Your task to perform on an android device: change notification settings in the gmail app Image 0: 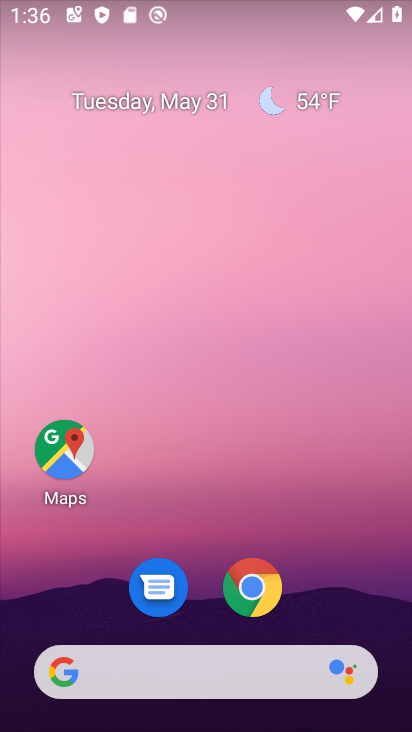
Step 0: drag from (188, 625) to (232, 198)
Your task to perform on an android device: change notification settings in the gmail app Image 1: 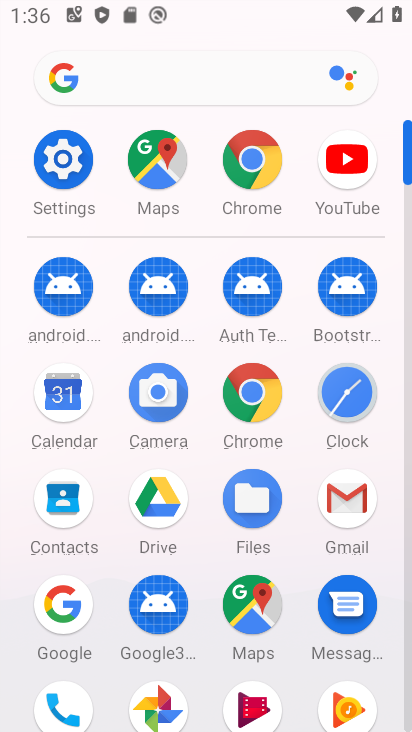
Step 1: click (339, 509)
Your task to perform on an android device: change notification settings in the gmail app Image 2: 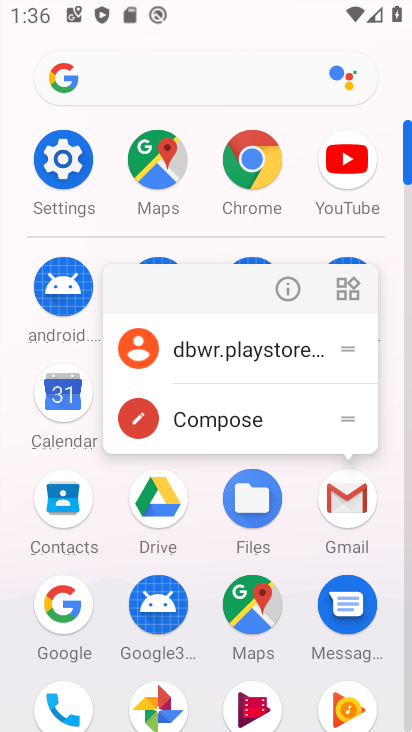
Step 2: click (278, 287)
Your task to perform on an android device: change notification settings in the gmail app Image 3: 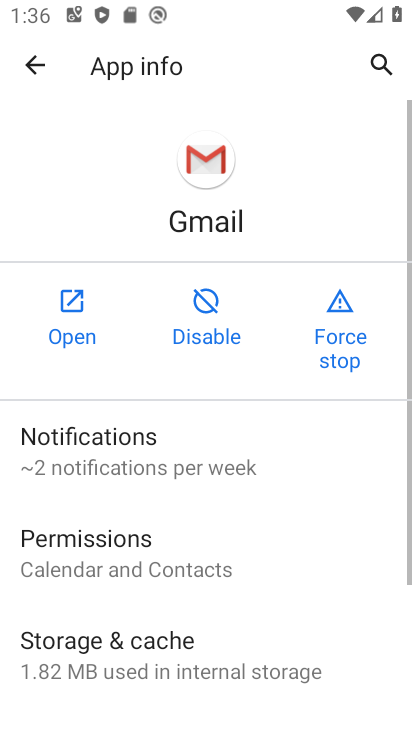
Step 3: click (69, 325)
Your task to perform on an android device: change notification settings in the gmail app Image 4: 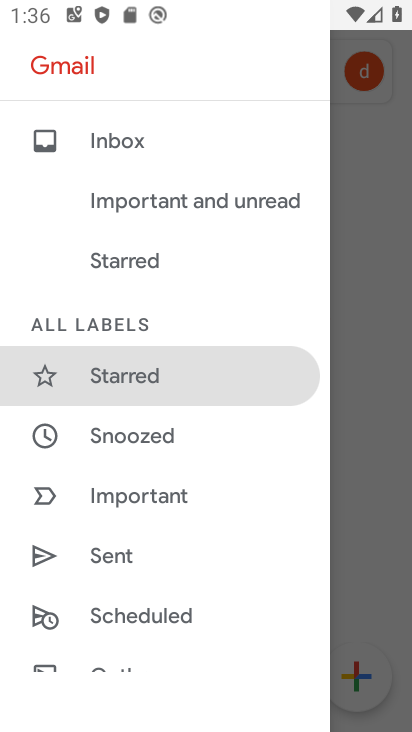
Step 4: drag from (176, 590) to (221, 199)
Your task to perform on an android device: change notification settings in the gmail app Image 5: 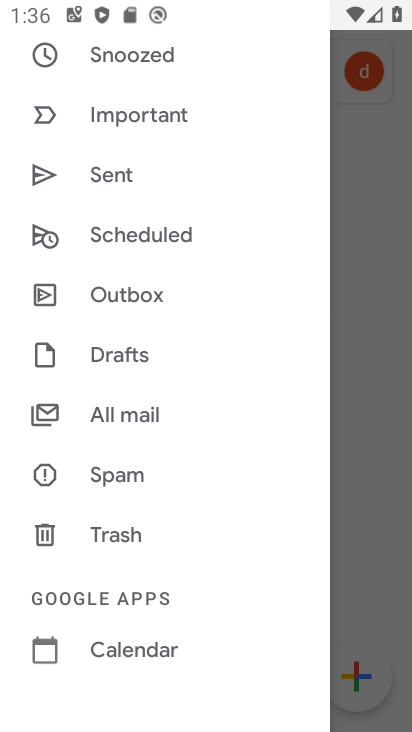
Step 5: drag from (147, 552) to (225, 123)
Your task to perform on an android device: change notification settings in the gmail app Image 6: 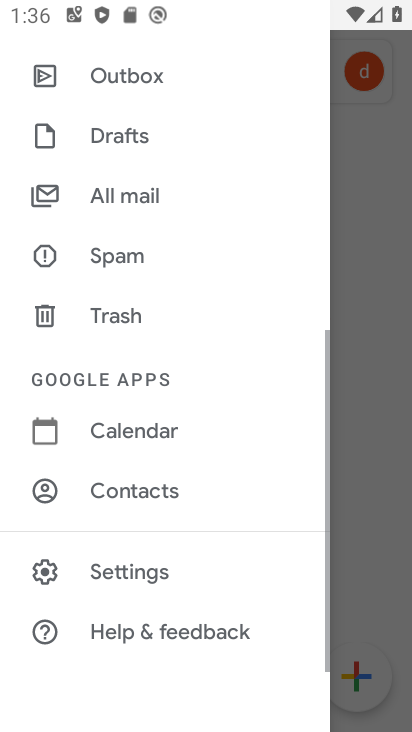
Step 6: click (118, 580)
Your task to perform on an android device: change notification settings in the gmail app Image 7: 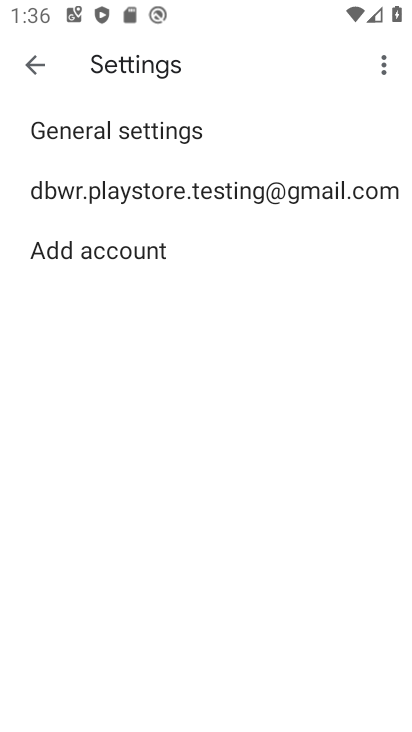
Step 7: click (167, 154)
Your task to perform on an android device: change notification settings in the gmail app Image 8: 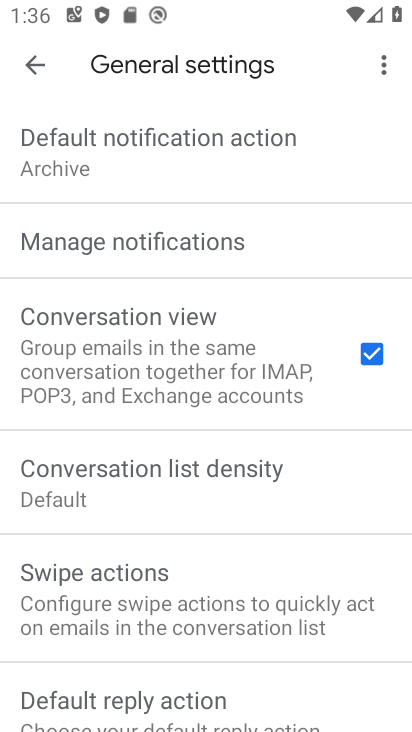
Step 8: click (41, 72)
Your task to perform on an android device: change notification settings in the gmail app Image 9: 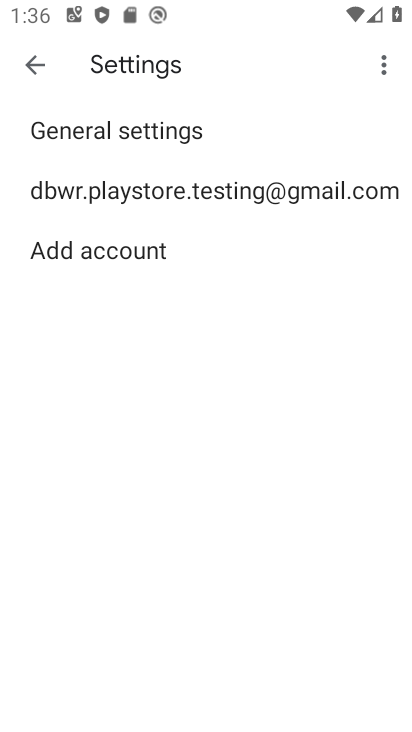
Step 9: click (114, 188)
Your task to perform on an android device: change notification settings in the gmail app Image 10: 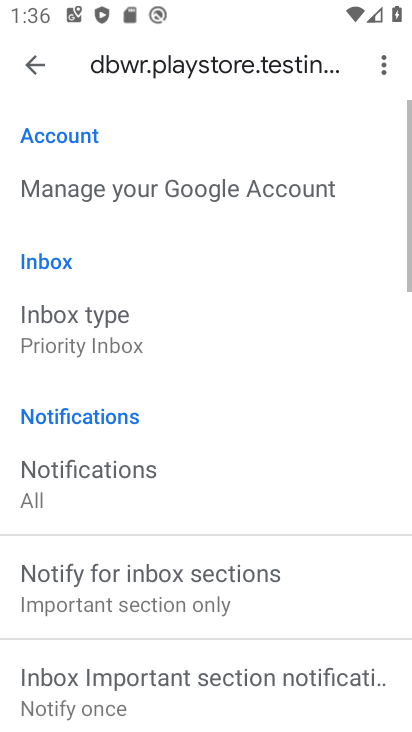
Step 10: drag from (111, 538) to (223, 189)
Your task to perform on an android device: change notification settings in the gmail app Image 11: 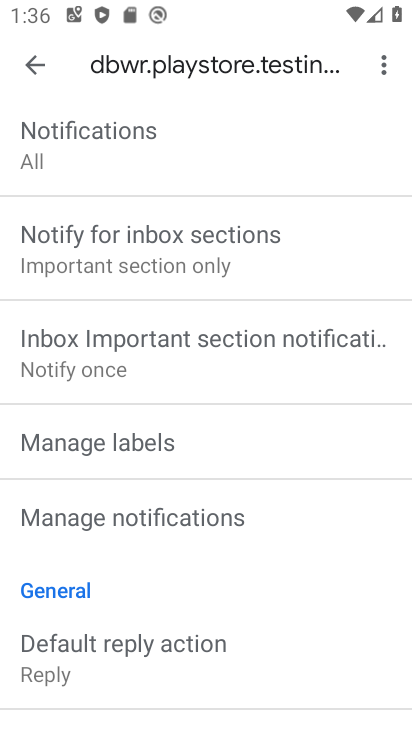
Step 11: click (107, 519)
Your task to perform on an android device: change notification settings in the gmail app Image 12: 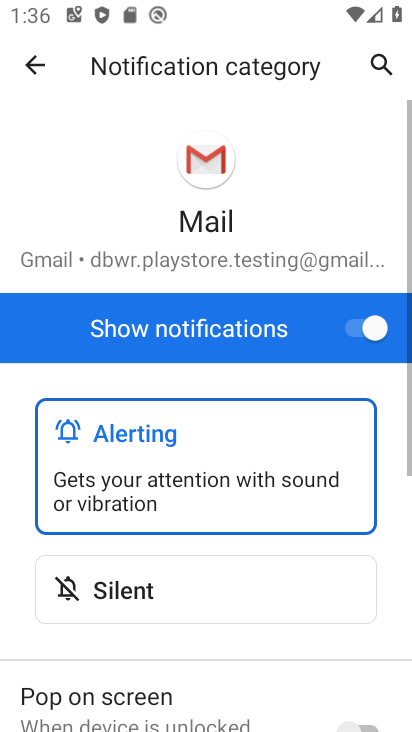
Step 12: drag from (134, 512) to (241, 201)
Your task to perform on an android device: change notification settings in the gmail app Image 13: 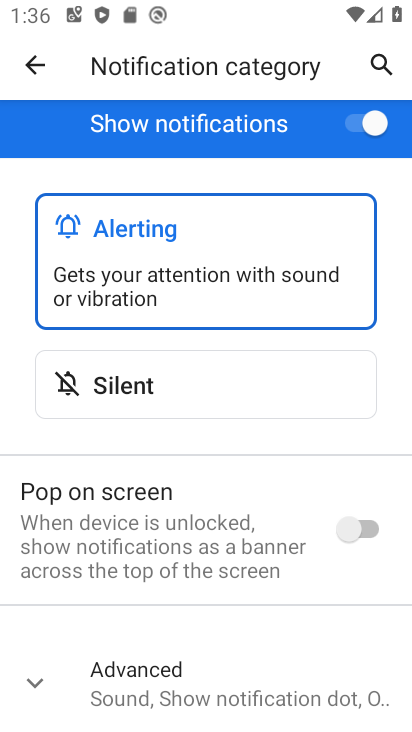
Step 13: click (364, 131)
Your task to perform on an android device: change notification settings in the gmail app Image 14: 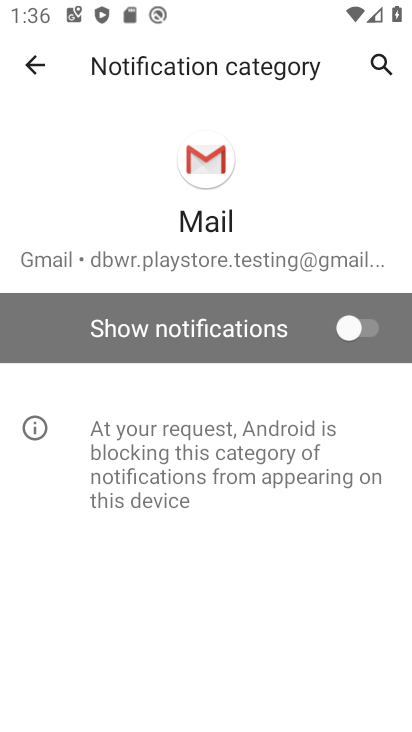
Step 14: task complete